Your task to perform on an android device: turn off data saver in the chrome app Image 0: 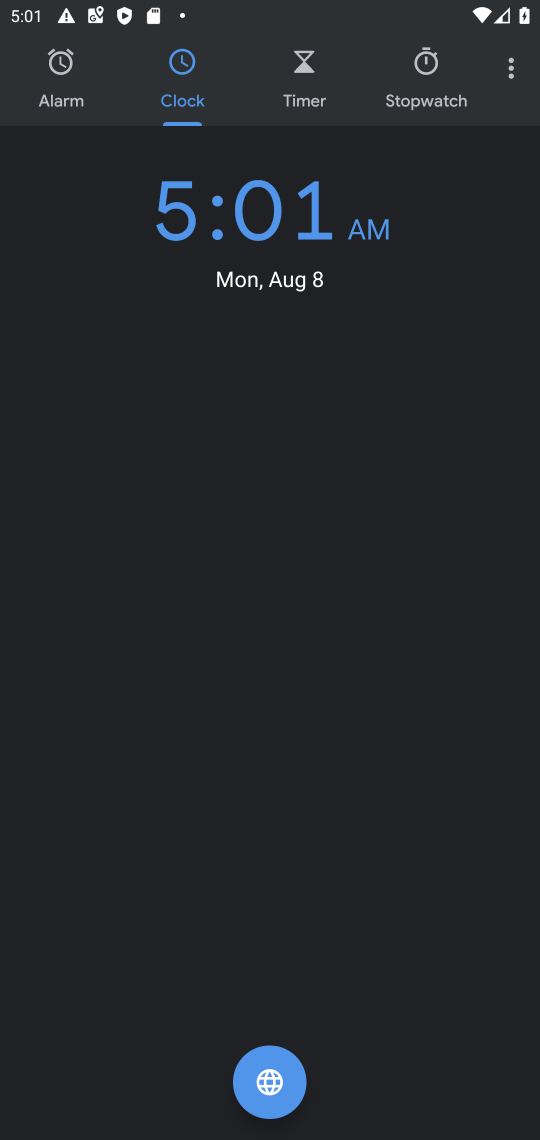
Step 0: press home button
Your task to perform on an android device: turn off data saver in the chrome app Image 1: 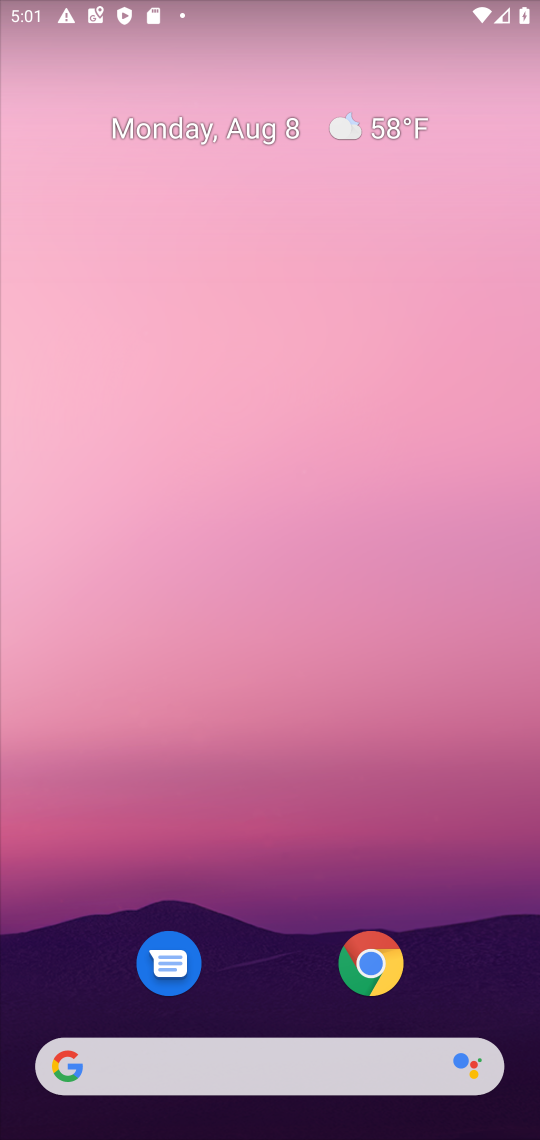
Step 1: click (367, 971)
Your task to perform on an android device: turn off data saver in the chrome app Image 2: 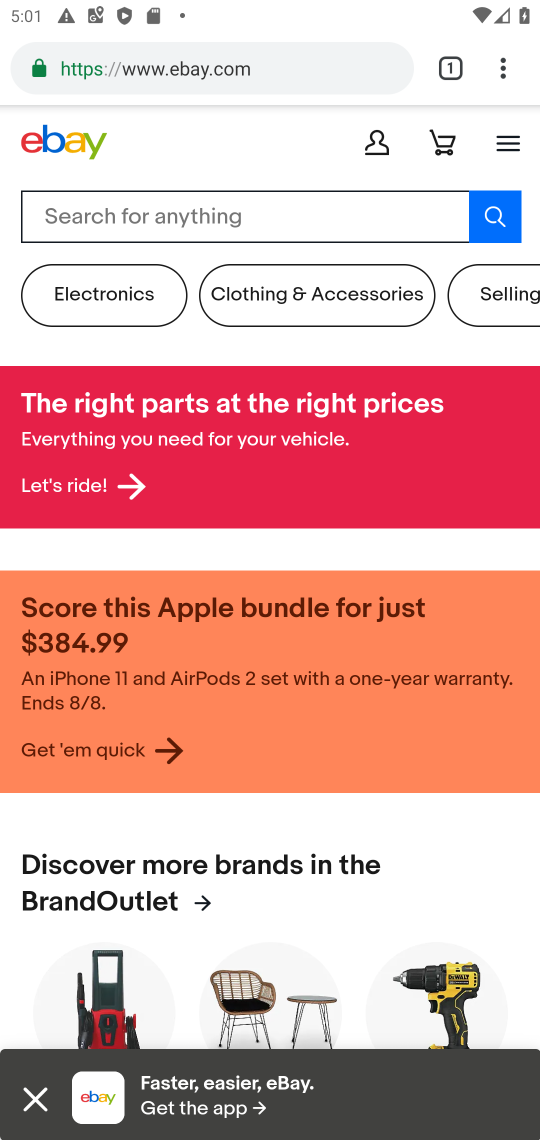
Step 2: click (494, 43)
Your task to perform on an android device: turn off data saver in the chrome app Image 3: 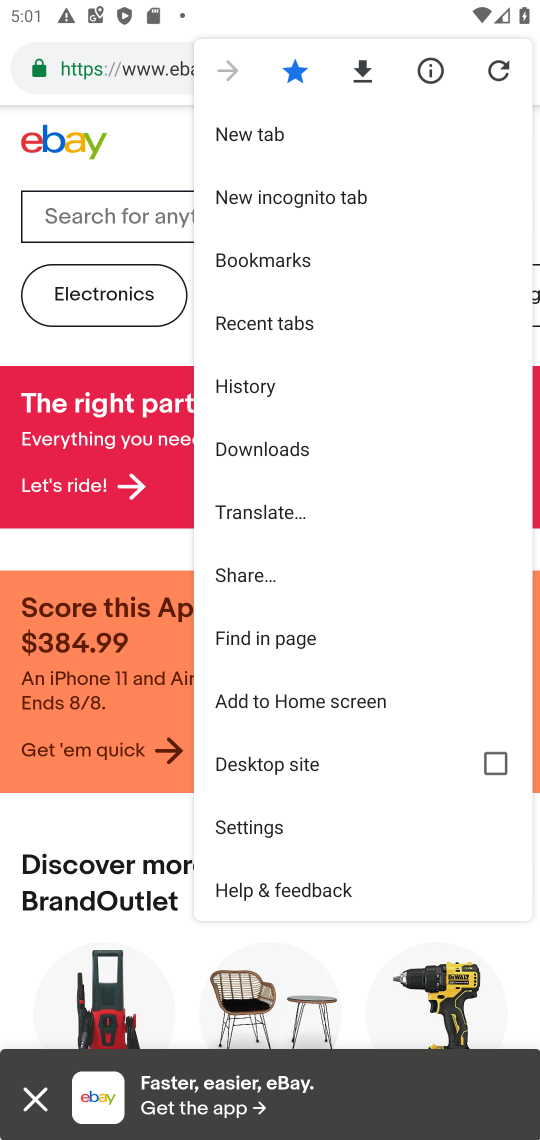
Step 3: click (258, 843)
Your task to perform on an android device: turn off data saver in the chrome app Image 4: 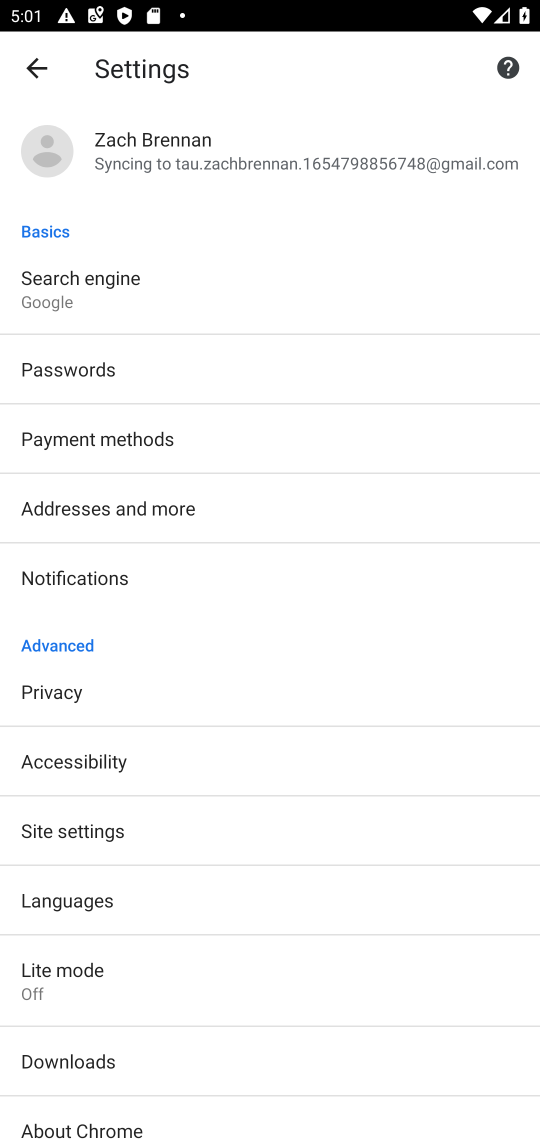
Step 4: click (161, 992)
Your task to perform on an android device: turn off data saver in the chrome app Image 5: 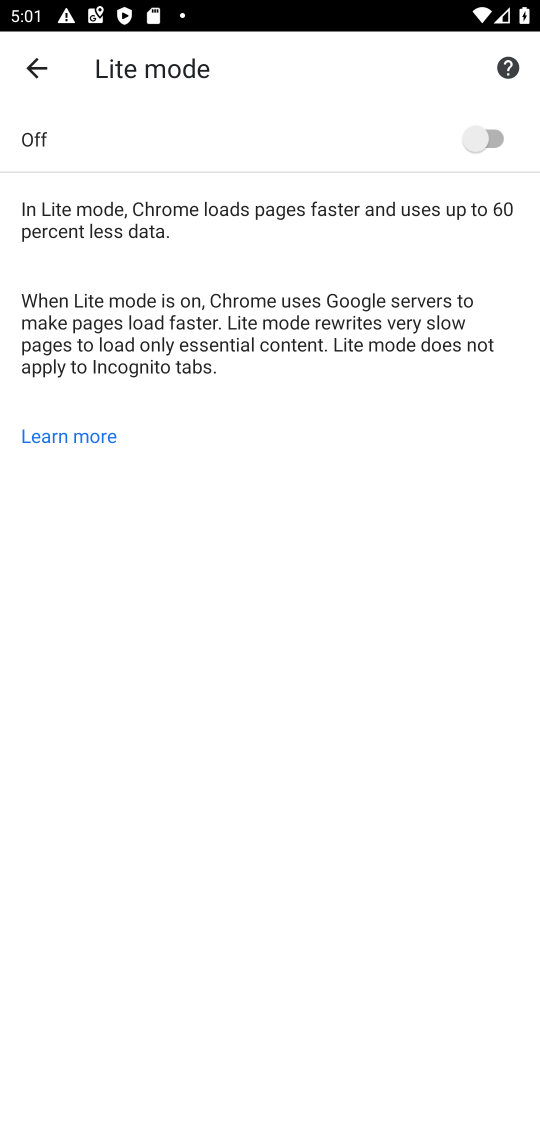
Step 5: task complete